Your task to perform on an android device: change the clock display to analog Image 0: 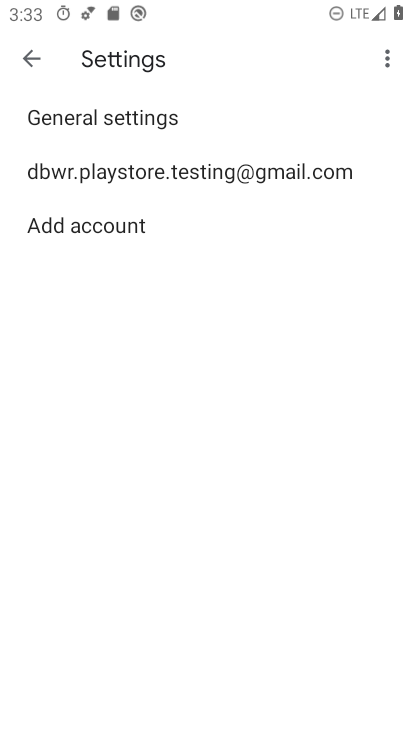
Step 0: press home button
Your task to perform on an android device: change the clock display to analog Image 1: 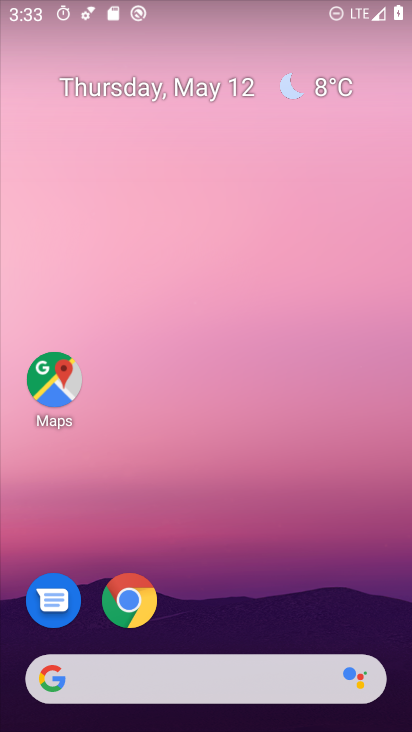
Step 1: drag from (223, 725) to (226, 236)
Your task to perform on an android device: change the clock display to analog Image 2: 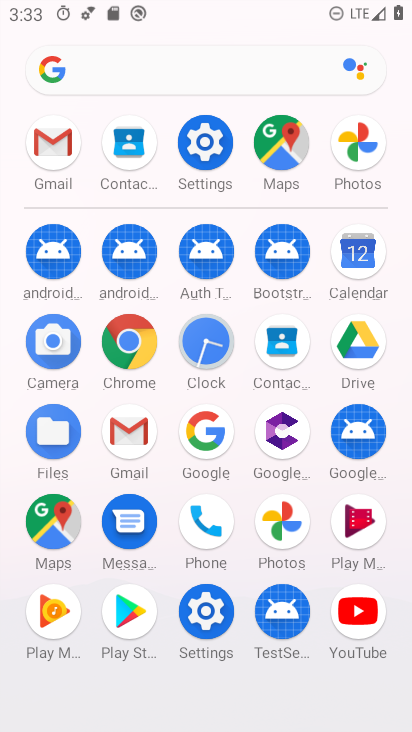
Step 2: click (198, 337)
Your task to perform on an android device: change the clock display to analog Image 3: 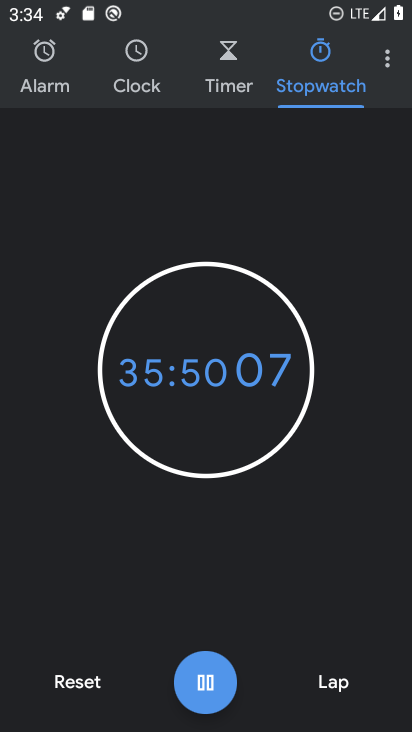
Step 3: click (387, 61)
Your task to perform on an android device: change the clock display to analog Image 4: 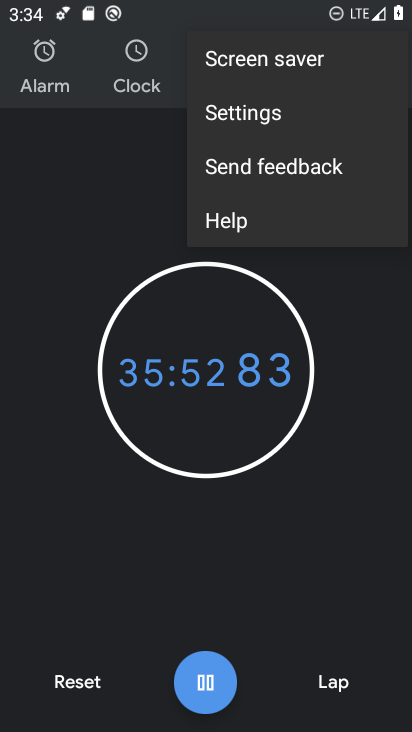
Step 4: click (244, 112)
Your task to perform on an android device: change the clock display to analog Image 5: 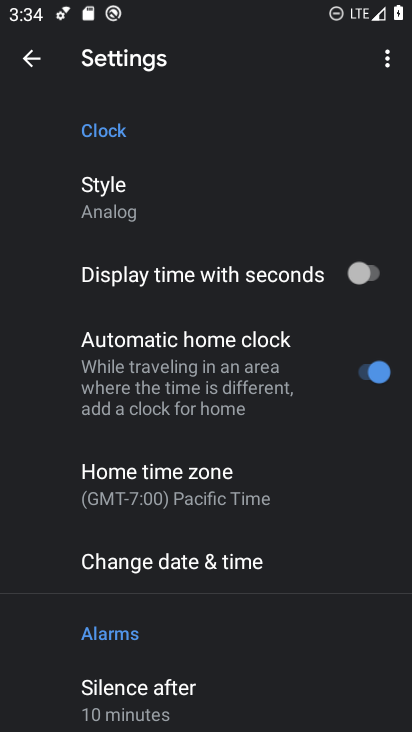
Step 5: task complete